Your task to perform on an android device: toggle notification dots Image 0: 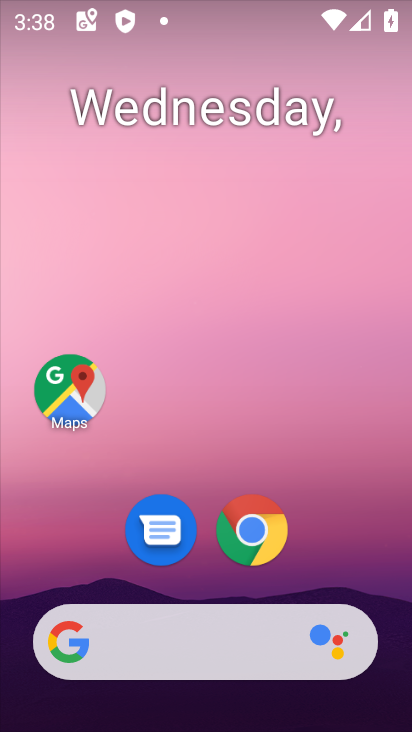
Step 0: drag from (346, 567) to (335, 144)
Your task to perform on an android device: toggle notification dots Image 1: 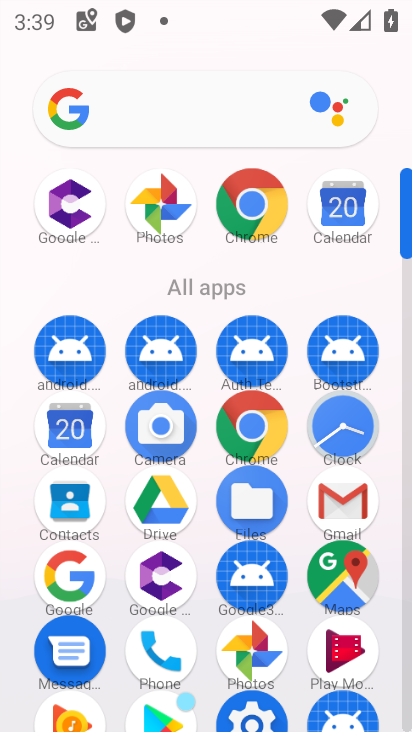
Step 1: drag from (282, 288) to (313, 6)
Your task to perform on an android device: toggle notification dots Image 2: 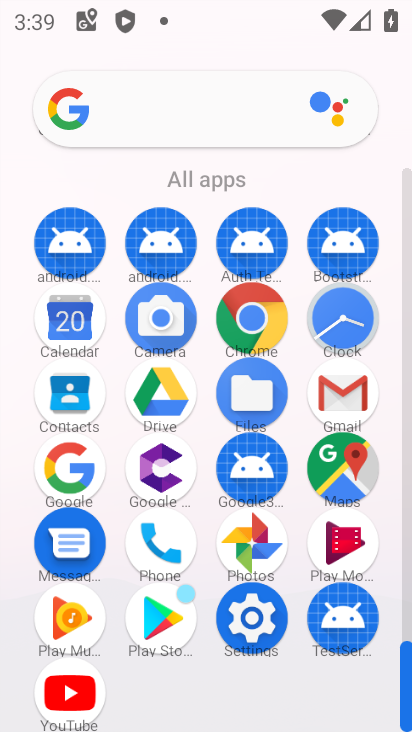
Step 2: click (244, 608)
Your task to perform on an android device: toggle notification dots Image 3: 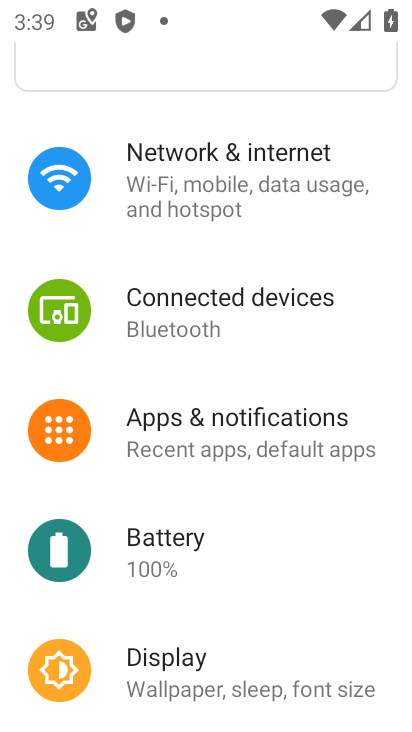
Step 3: click (238, 436)
Your task to perform on an android device: toggle notification dots Image 4: 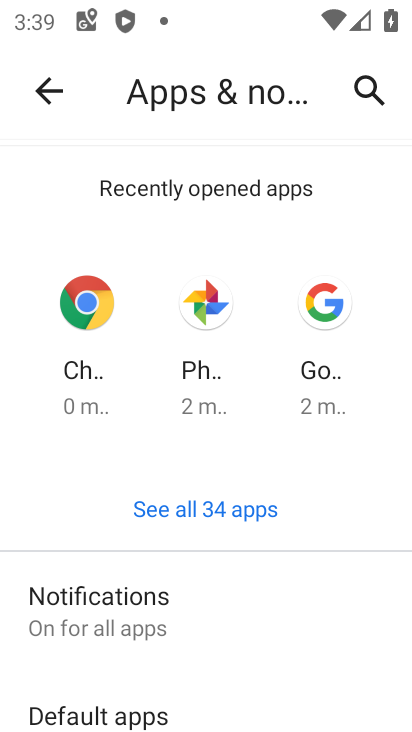
Step 4: click (127, 611)
Your task to perform on an android device: toggle notification dots Image 5: 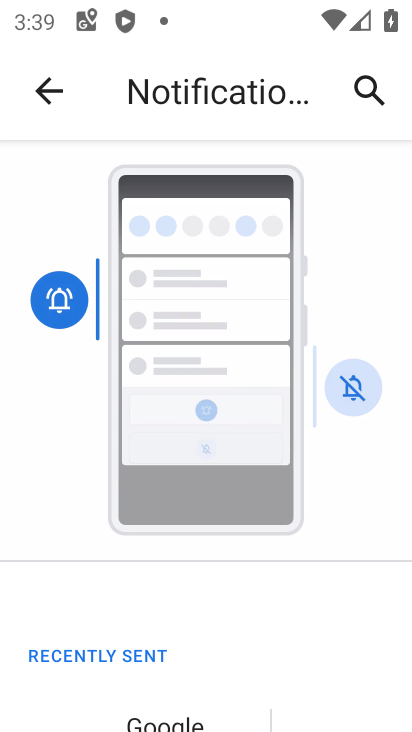
Step 5: drag from (259, 414) to (297, 87)
Your task to perform on an android device: toggle notification dots Image 6: 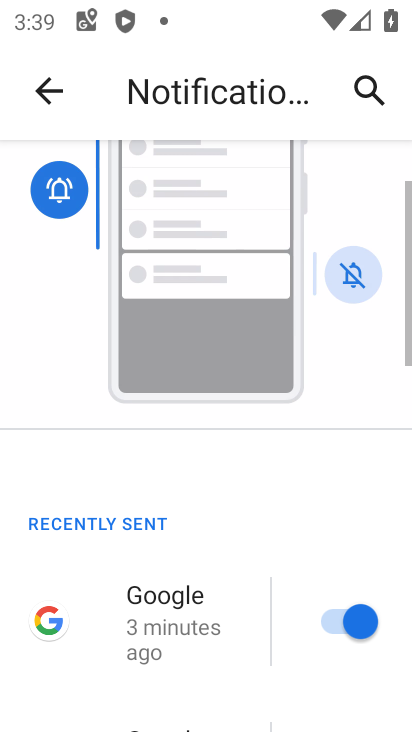
Step 6: drag from (307, 619) to (326, 169)
Your task to perform on an android device: toggle notification dots Image 7: 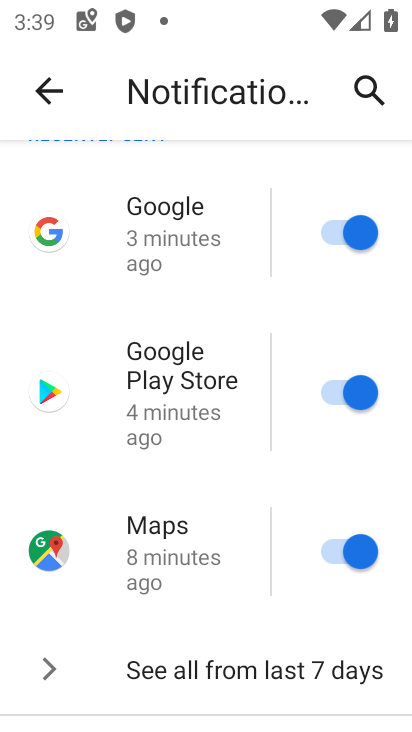
Step 7: drag from (244, 631) to (295, 208)
Your task to perform on an android device: toggle notification dots Image 8: 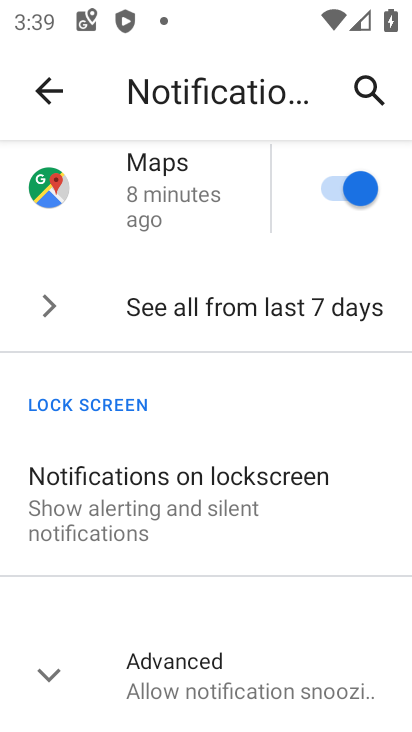
Step 8: click (174, 669)
Your task to perform on an android device: toggle notification dots Image 9: 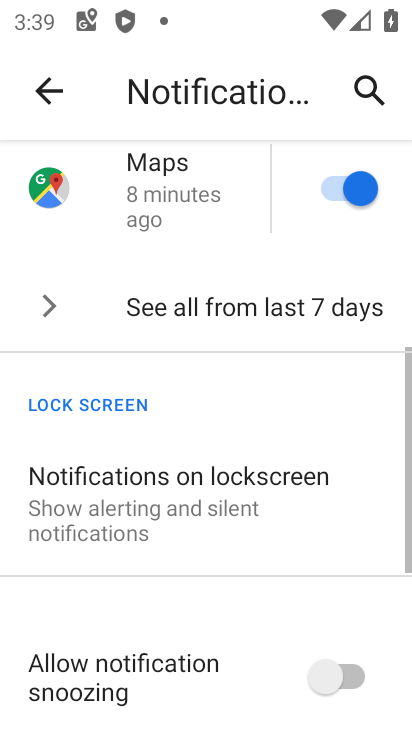
Step 9: drag from (307, 597) to (382, 245)
Your task to perform on an android device: toggle notification dots Image 10: 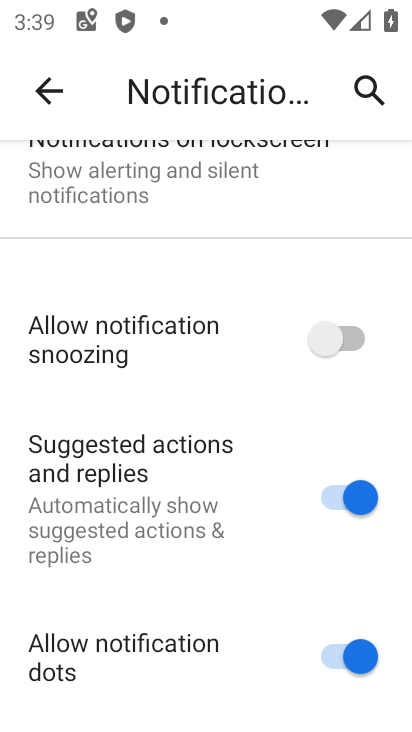
Step 10: click (335, 650)
Your task to perform on an android device: toggle notification dots Image 11: 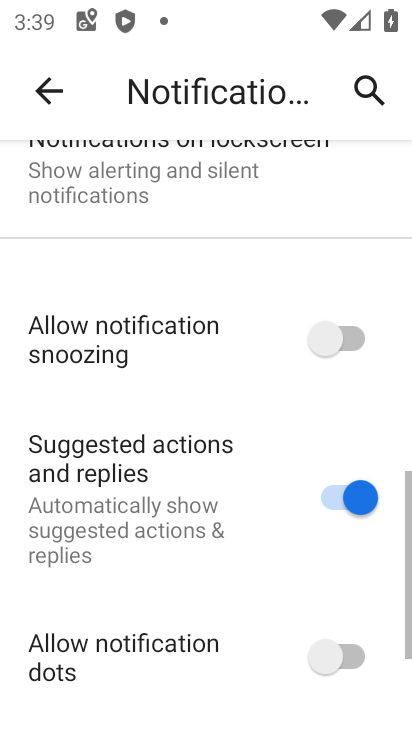
Step 11: task complete